Your task to perform on an android device: refresh tabs in the chrome app Image 0: 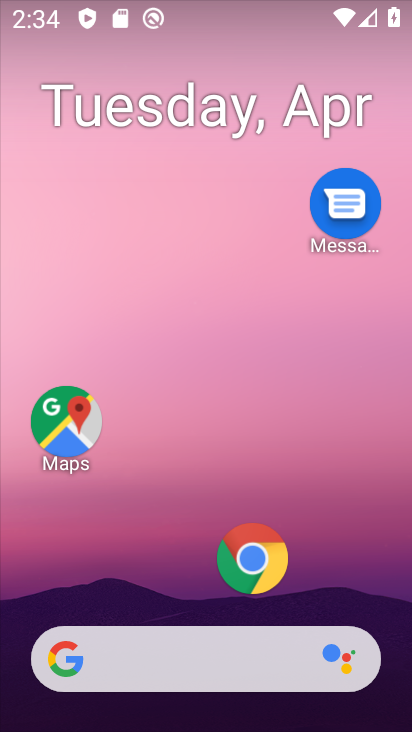
Step 0: click (244, 569)
Your task to perform on an android device: refresh tabs in the chrome app Image 1: 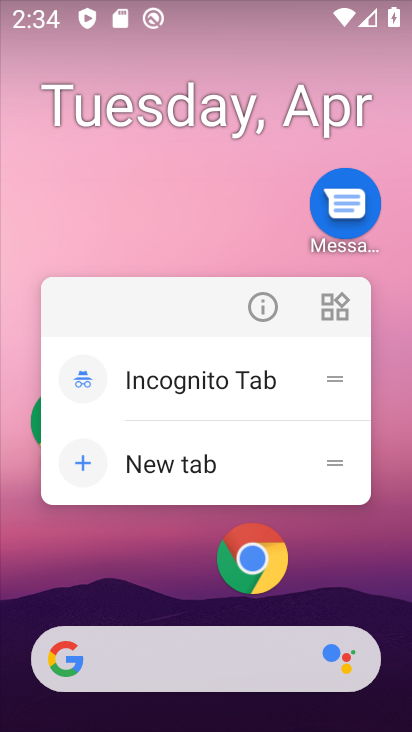
Step 1: click (241, 568)
Your task to perform on an android device: refresh tabs in the chrome app Image 2: 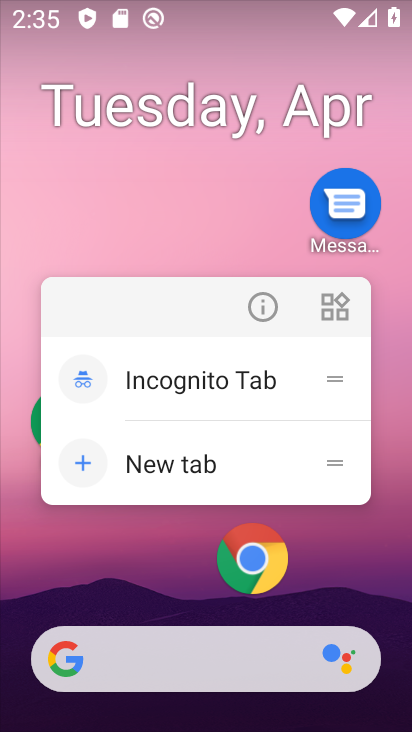
Step 2: click (247, 558)
Your task to perform on an android device: refresh tabs in the chrome app Image 3: 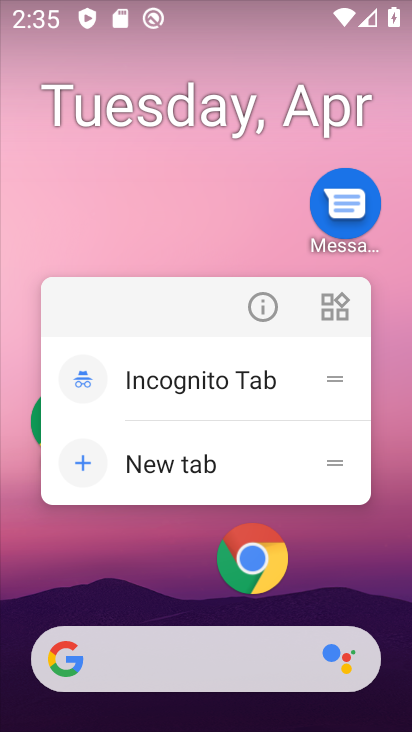
Step 3: click (246, 557)
Your task to perform on an android device: refresh tabs in the chrome app Image 4: 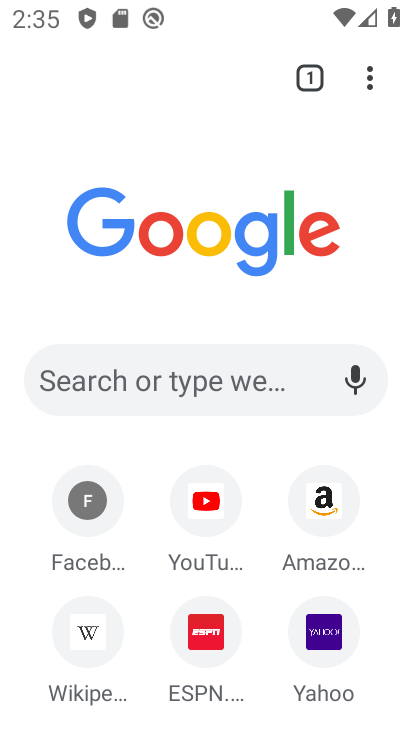
Step 4: click (359, 89)
Your task to perform on an android device: refresh tabs in the chrome app Image 5: 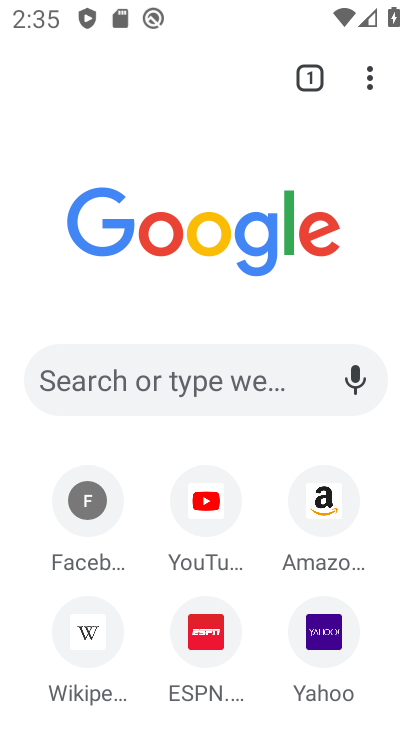
Step 5: click (362, 81)
Your task to perform on an android device: refresh tabs in the chrome app Image 6: 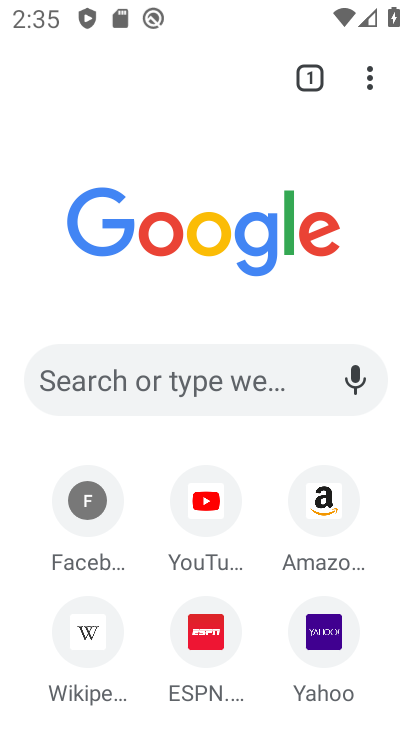
Step 6: task complete